Your task to perform on an android device: turn off notifications in google photos Image 0: 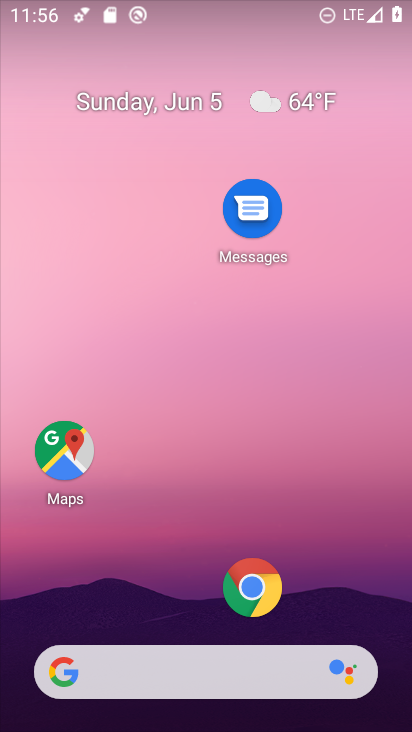
Step 0: click (260, 551)
Your task to perform on an android device: turn off notifications in google photos Image 1: 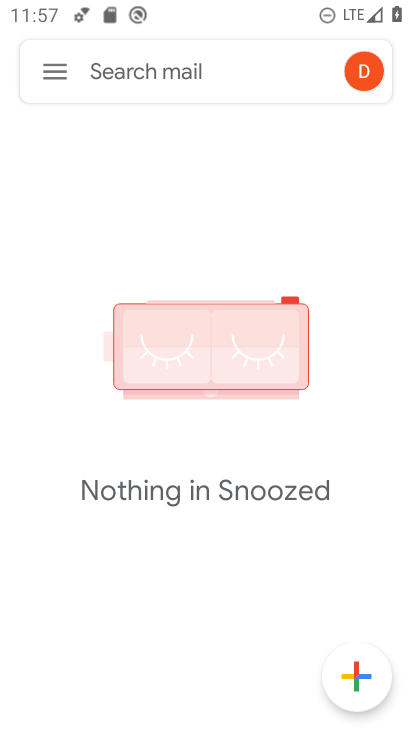
Step 1: click (58, 71)
Your task to perform on an android device: turn off notifications in google photos Image 2: 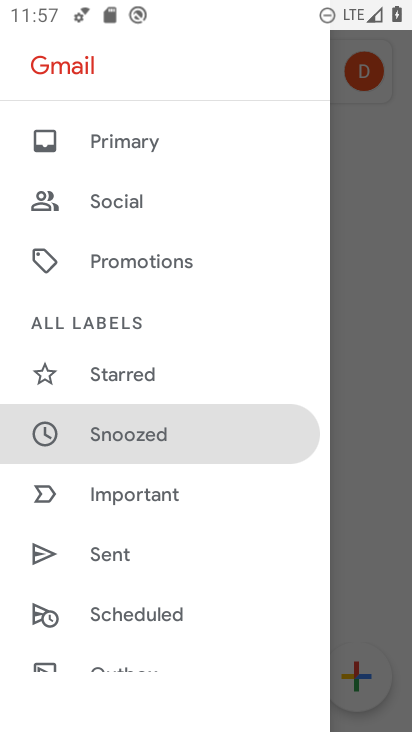
Step 2: drag from (35, 661) to (139, 261)
Your task to perform on an android device: turn off notifications in google photos Image 3: 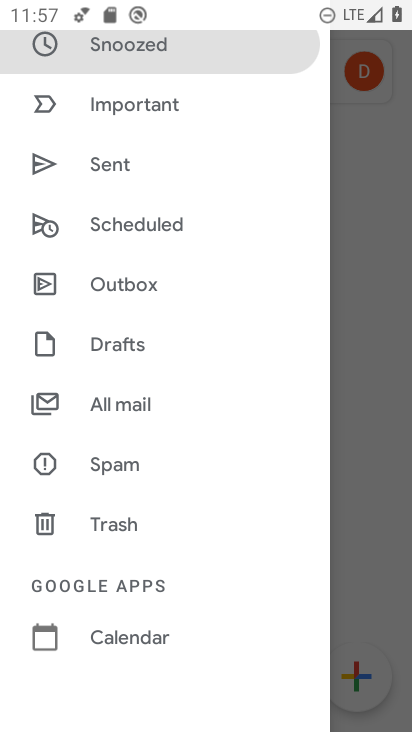
Step 3: drag from (121, 612) to (259, 134)
Your task to perform on an android device: turn off notifications in google photos Image 4: 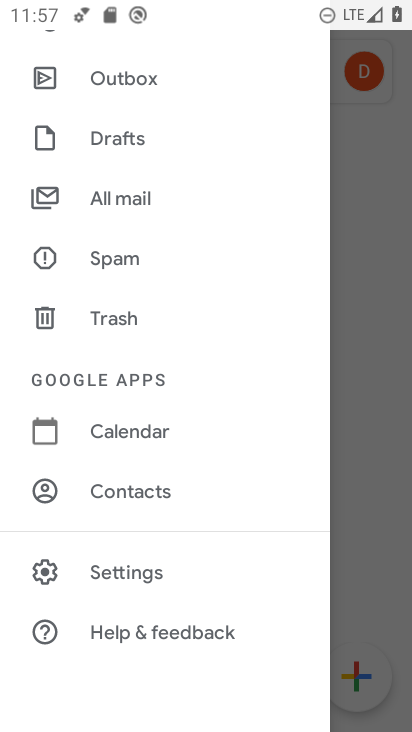
Step 4: click (121, 568)
Your task to perform on an android device: turn off notifications in google photos Image 5: 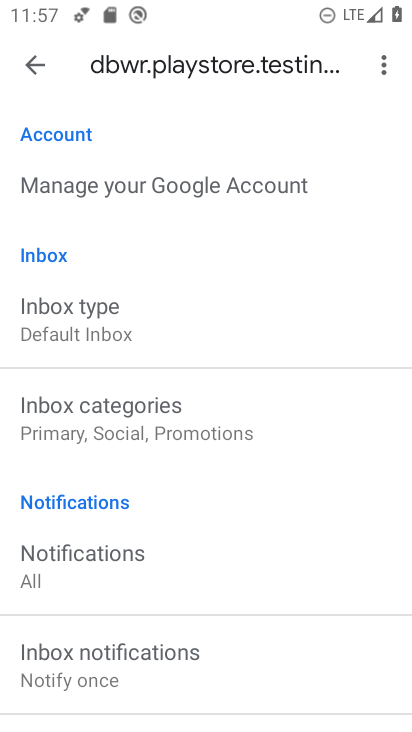
Step 5: click (160, 550)
Your task to perform on an android device: turn off notifications in google photos Image 6: 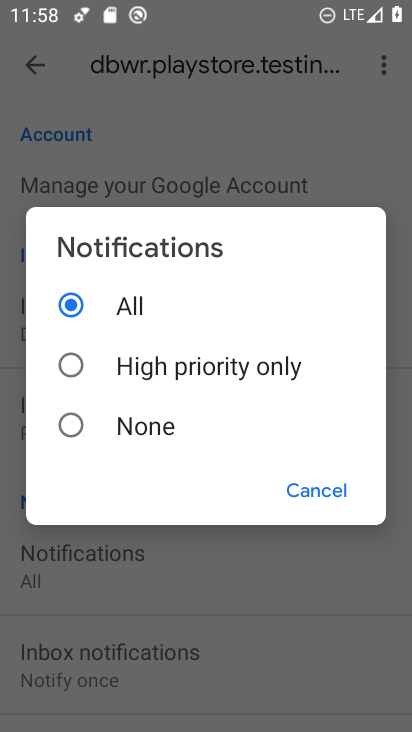
Step 6: click (97, 422)
Your task to perform on an android device: turn off notifications in google photos Image 7: 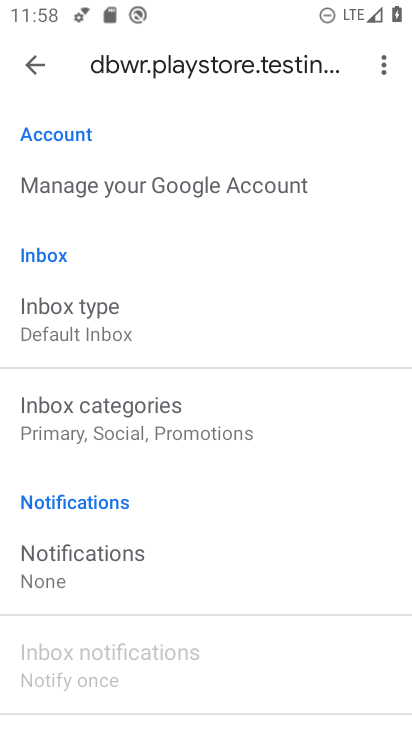
Step 7: task complete